Your task to perform on an android device: change your default location settings in chrome Image 0: 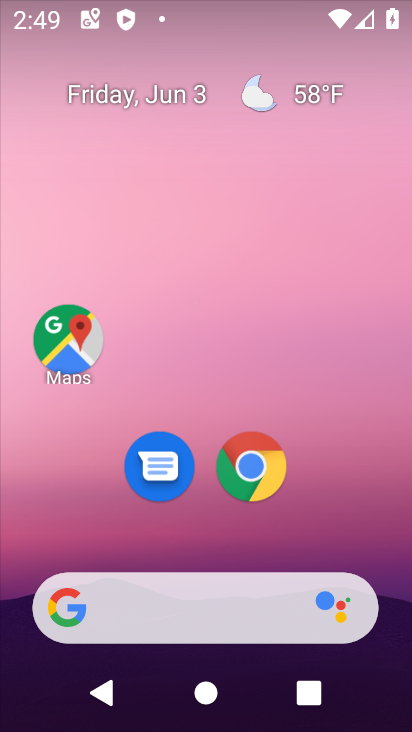
Step 0: click (269, 452)
Your task to perform on an android device: change your default location settings in chrome Image 1: 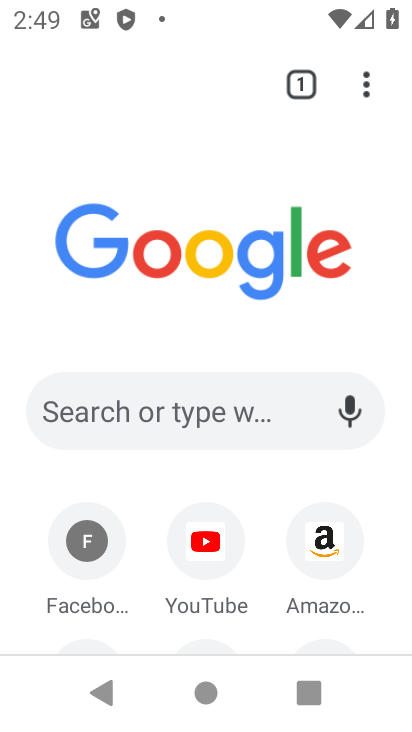
Step 1: click (366, 82)
Your task to perform on an android device: change your default location settings in chrome Image 2: 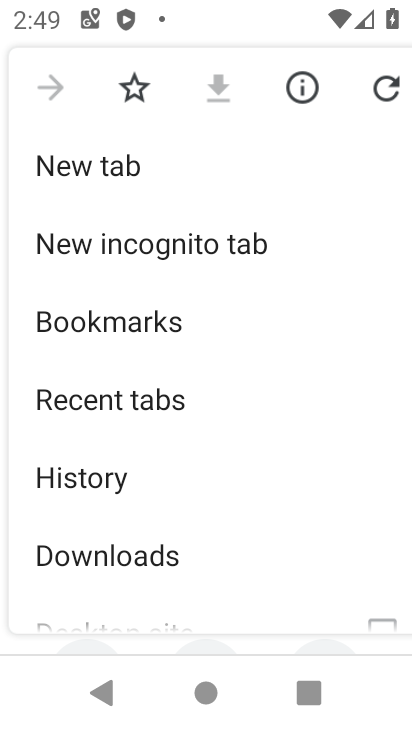
Step 2: drag from (318, 563) to (301, 6)
Your task to perform on an android device: change your default location settings in chrome Image 3: 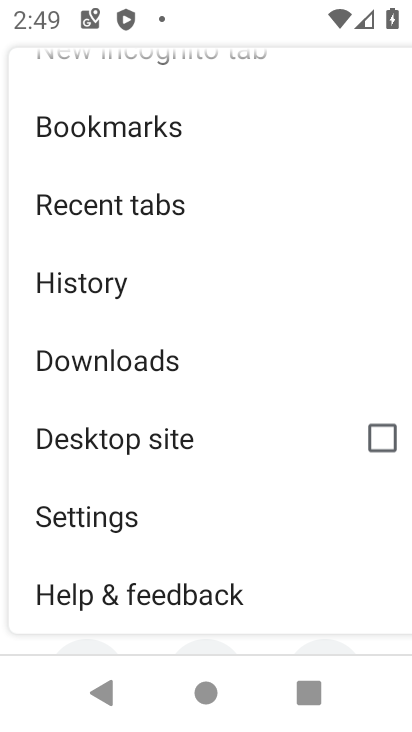
Step 3: click (181, 503)
Your task to perform on an android device: change your default location settings in chrome Image 4: 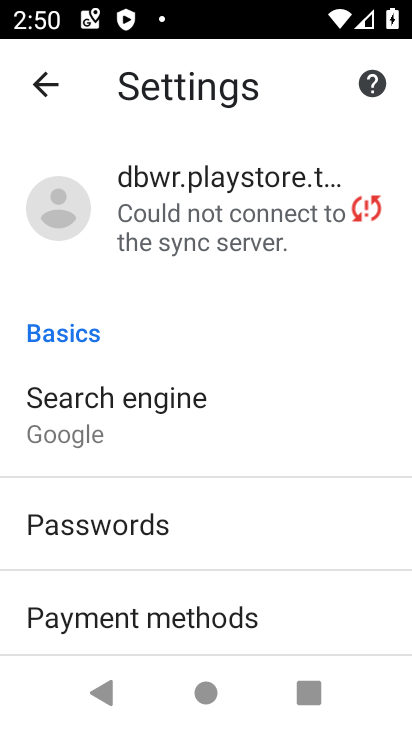
Step 4: drag from (183, 481) to (175, 154)
Your task to perform on an android device: change your default location settings in chrome Image 5: 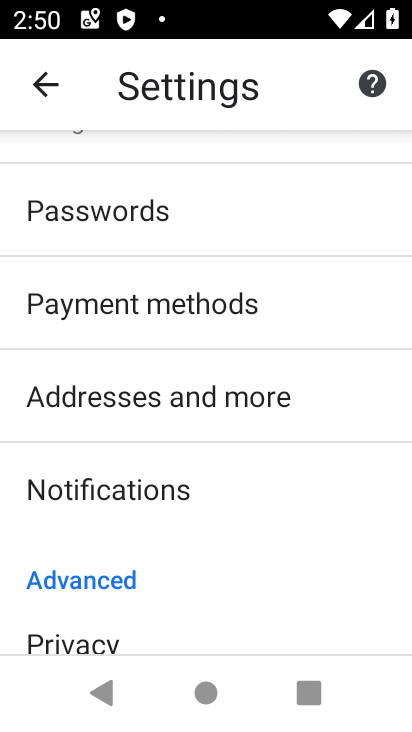
Step 5: drag from (247, 581) to (282, 208)
Your task to perform on an android device: change your default location settings in chrome Image 6: 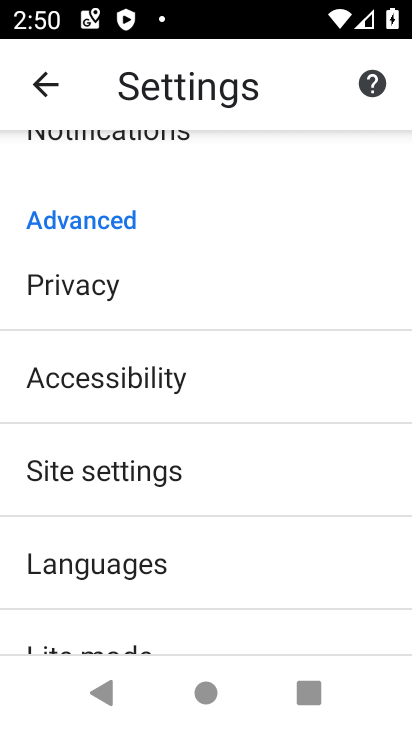
Step 6: drag from (183, 533) to (250, 194)
Your task to perform on an android device: change your default location settings in chrome Image 7: 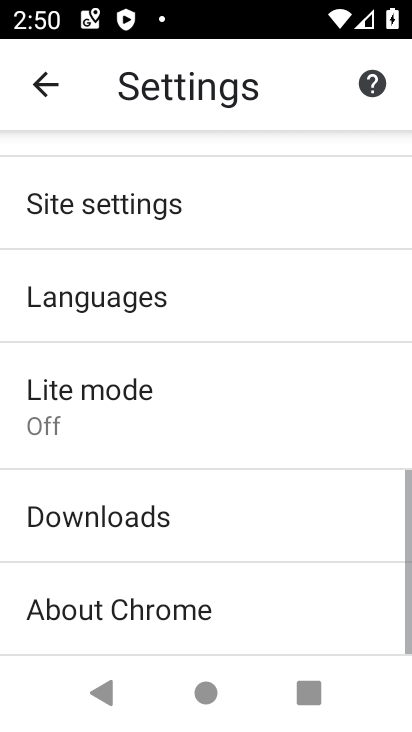
Step 7: drag from (253, 555) to (265, 222)
Your task to perform on an android device: change your default location settings in chrome Image 8: 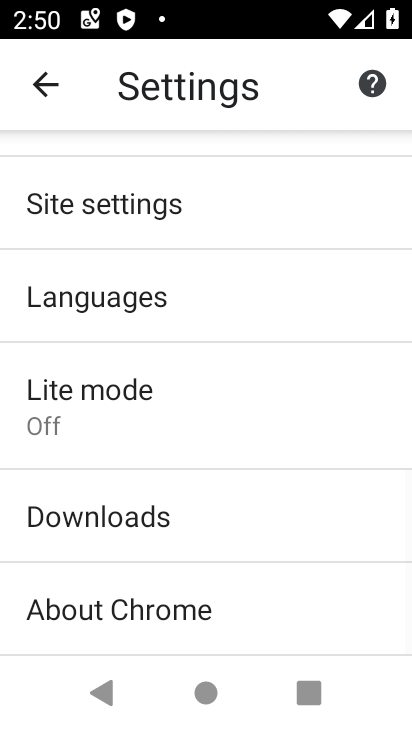
Step 8: click (244, 200)
Your task to perform on an android device: change your default location settings in chrome Image 9: 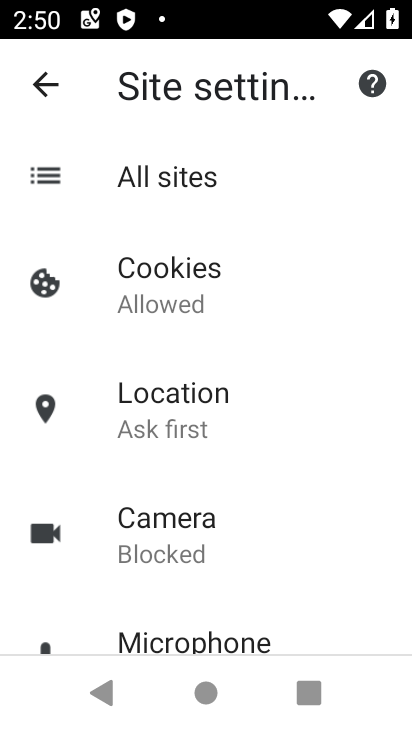
Step 9: click (222, 414)
Your task to perform on an android device: change your default location settings in chrome Image 10: 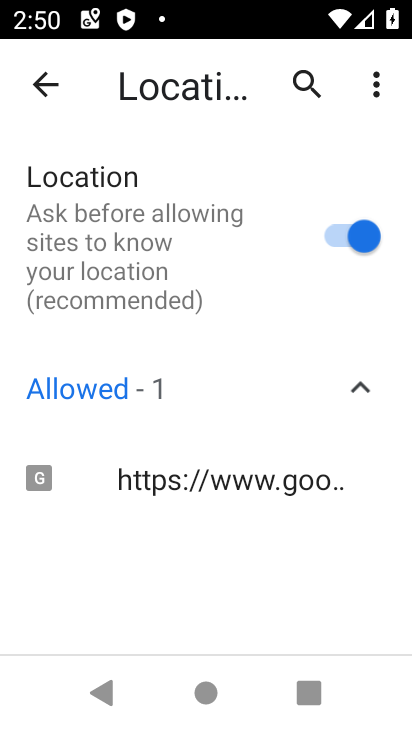
Step 10: click (341, 240)
Your task to perform on an android device: change your default location settings in chrome Image 11: 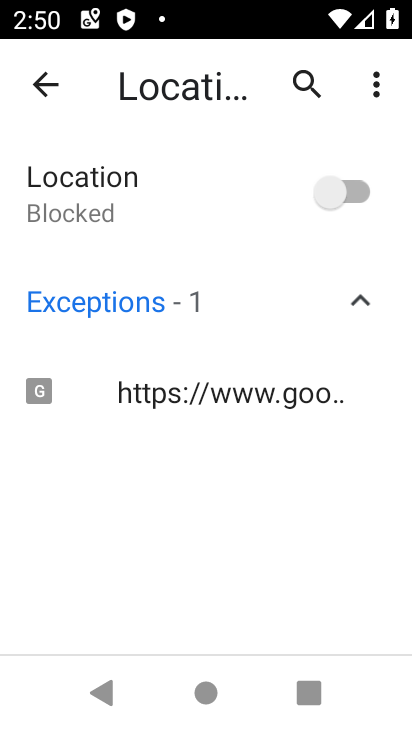
Step 11: task complete